Your task to perform on an android device: stop showing notifications on the lock screen Image 0: 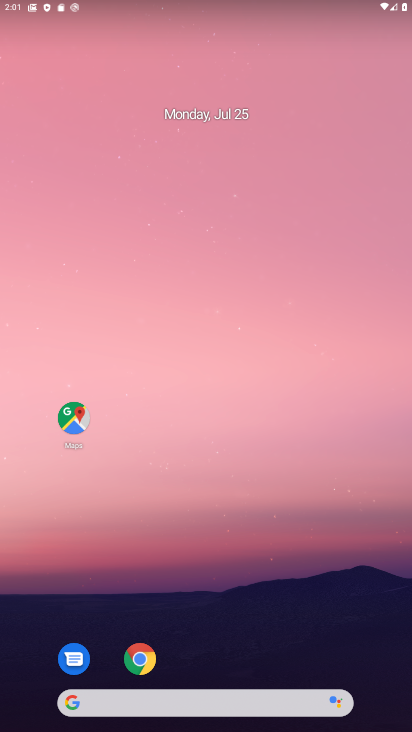
Step 0: drag from (296, 685) to (296, 245)
Your task to perform on an android device: stop showing notifications on the lock screen Image 1: 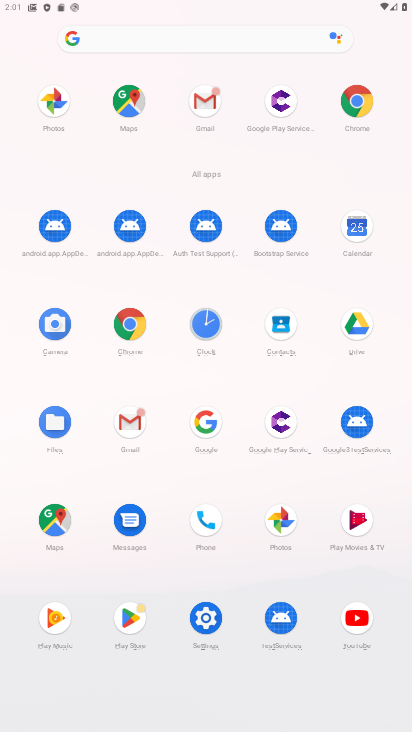
Step 1: click (213, 615)
Your task to perform on an android device: stop showing notifications on the lock screen Image 2: 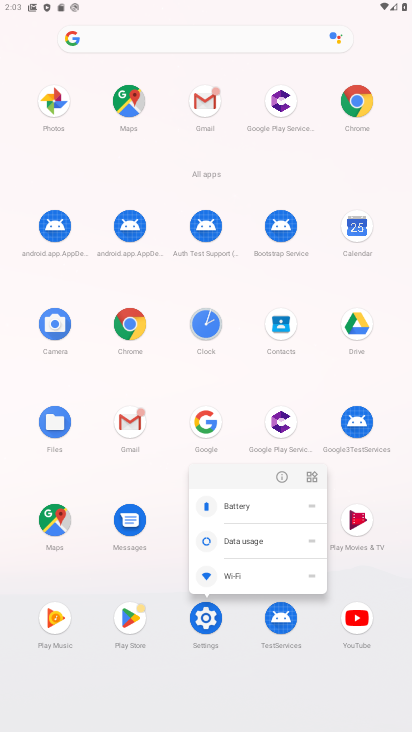
Step 2: click (194, 620)
Your task to perform on an android device: stop showing notifications on the lock screen Image 3: 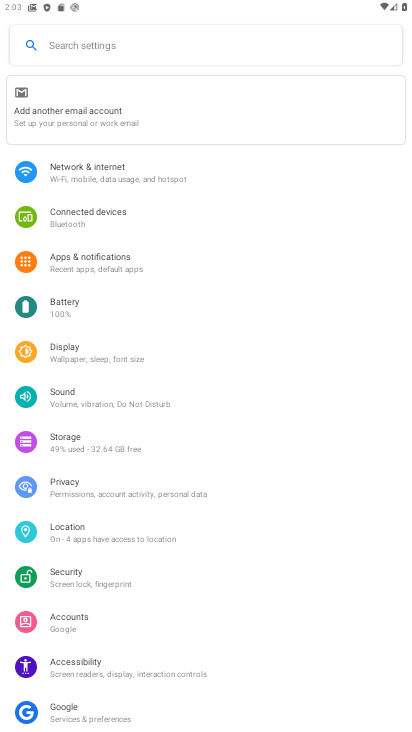
Step 3: click (69, 491)
Your task to perform on an android device: stop showing notifications on the lock screen Image 4: 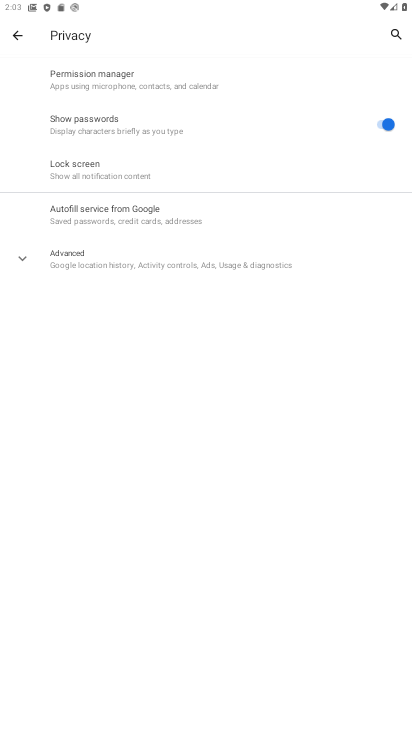
Step 4: click (76, 160)
Your task to perform on an android device: stop showing notifications on the lock screen Image 5: 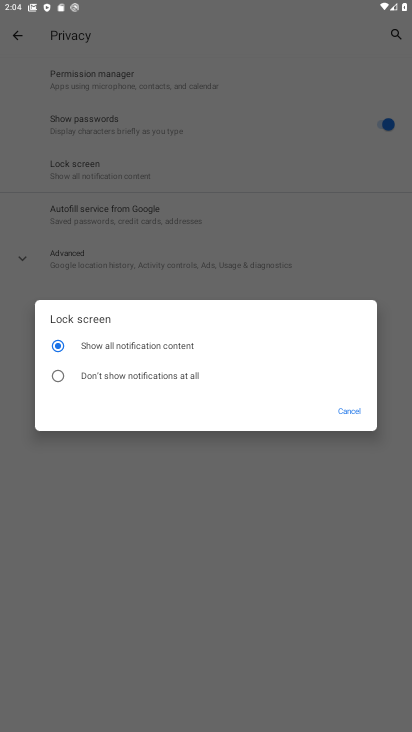
Step 5: click (136, 373)
Your task to perform on an android device: stop showing notifications on the lock screen Image 6: 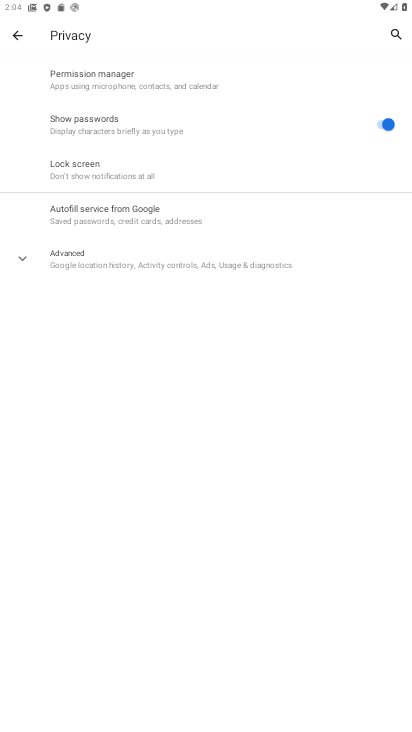
Step 6: task complete